Your task to perform on an android device: check storage Image 0: 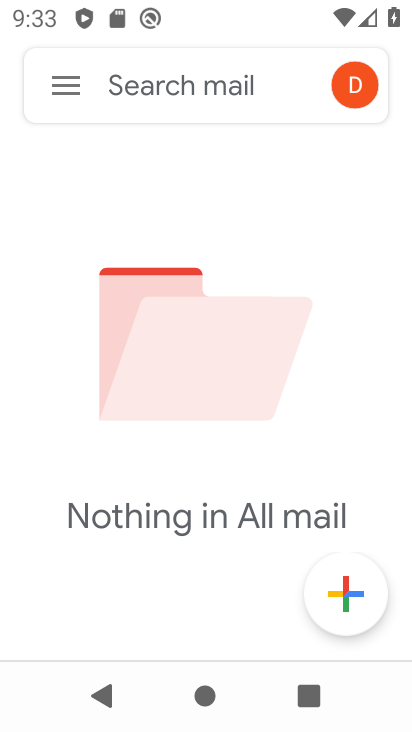
Step 0: press back button
Your task to perform on an android device: check storage Image 1: 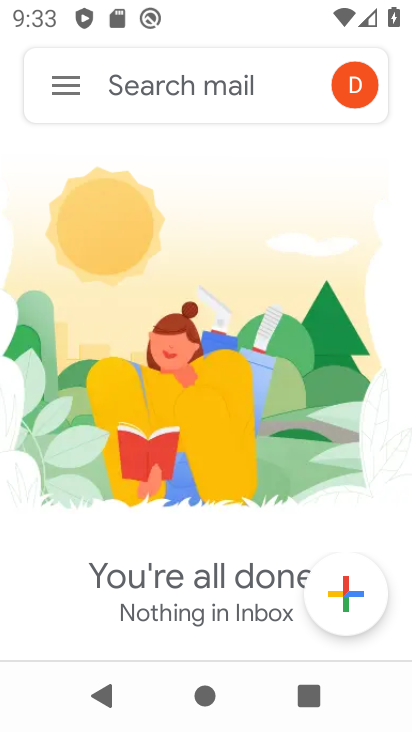
Step 1: press back button
Your task to perform on an android device: check storage Image 2: 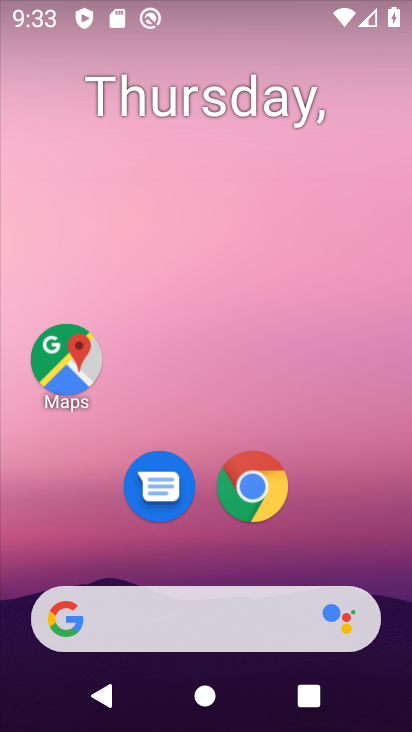
Step 2: drag from (195, 535) to (285, 10)
Your task to perform on an android device: check storage Image 3: 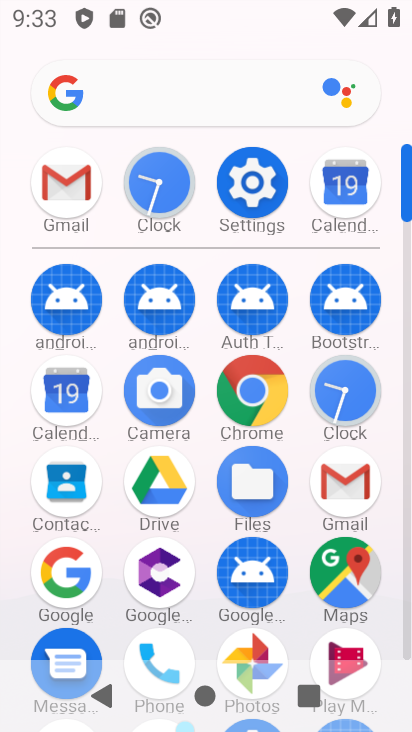
Step 3: click (261, 167)
Your task to perform on an android device: check storage Image 4: 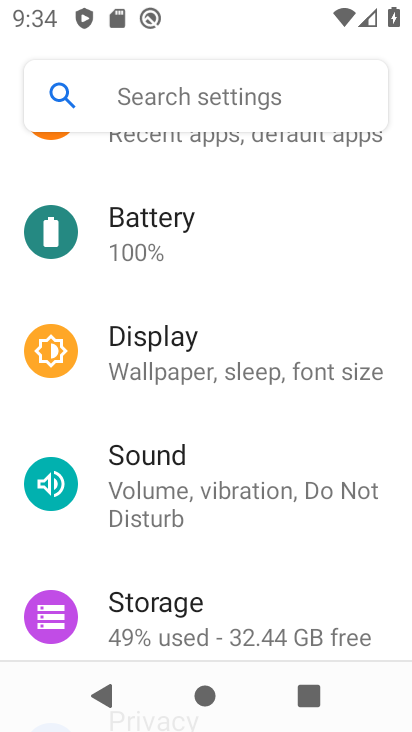
Step 4: click (215, 597)
Your task to perform on an android device: check storage Image 5: 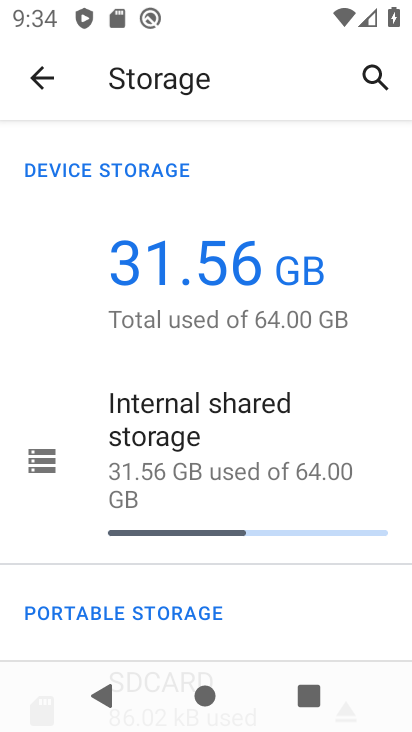
Step 5: task complete